Your task to perform on an android device: toggle priority inbox in the gmail app Image 0: 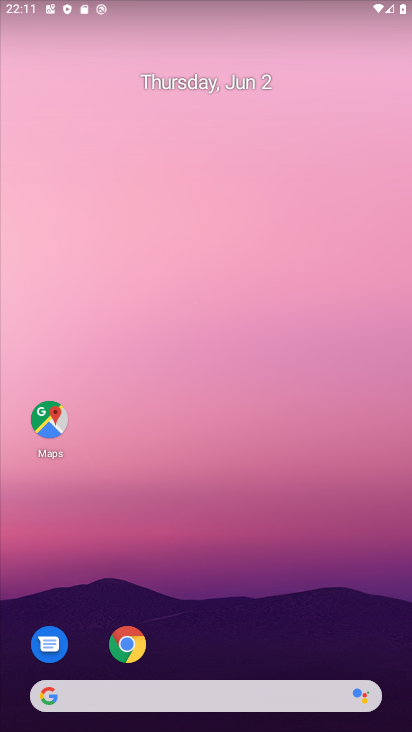
Step 0: drag from (212, 660) to (259, 102)
Your task to perform on an android device: toggle priority inbox in the gmail app Image 1: 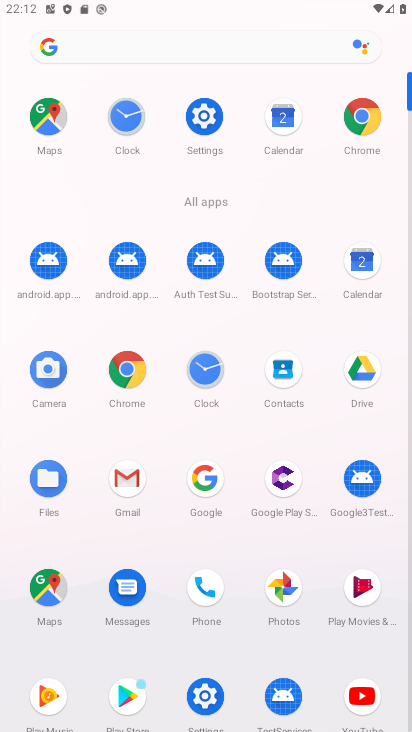
Step 1: click (139, 508)
Your task to perform on an android device: toggle priority inbox in the gmail app Image 2: 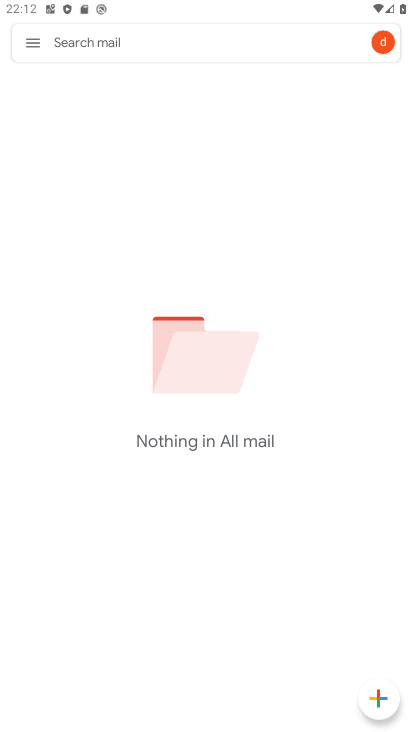
Step 2: click (28, 48)
Your task to perform on an android device: toggle priority inbox in the gmail app Image 3: 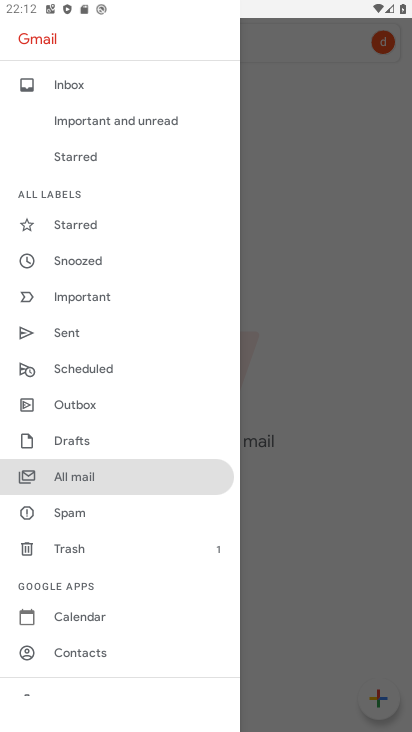
Step 3: drag from (88, 636) to (105, 392)
Your task to perform on an android device: toggle priority inbox in the gmail app Image 4: 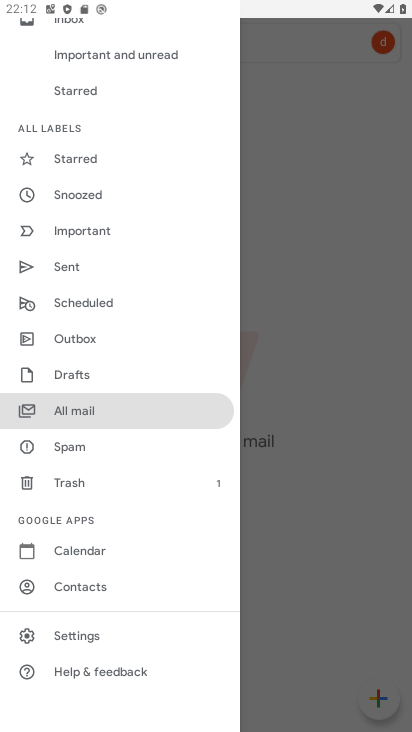
Step 4: click (79, 646)
Your task to perform on an android device: toggle priority inbox in the gmail app Image 5: 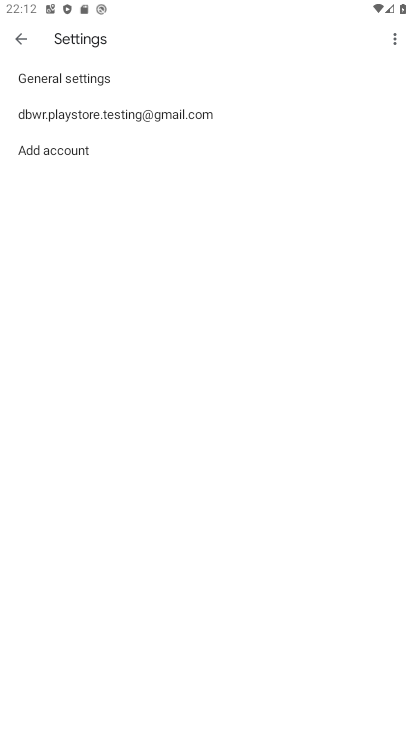
Step 5: click (124, 121)
Your task to perform on an android device: toggle priority inbox in the gmail app Image 6: 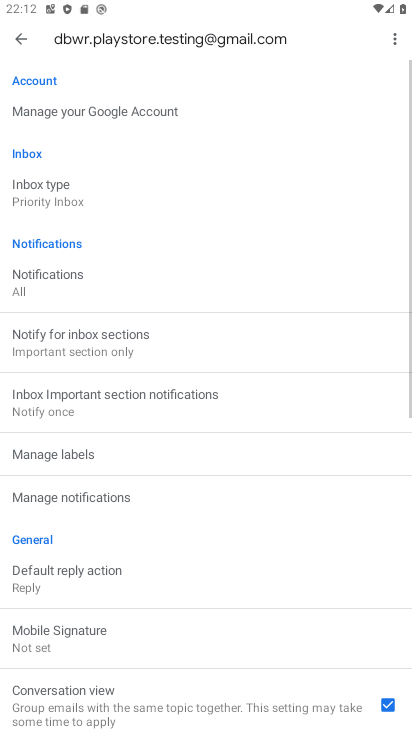
Step 6: click (40, 209)
Your task to perform on an android device: toggle priority inbox in the gmail app Image 7: 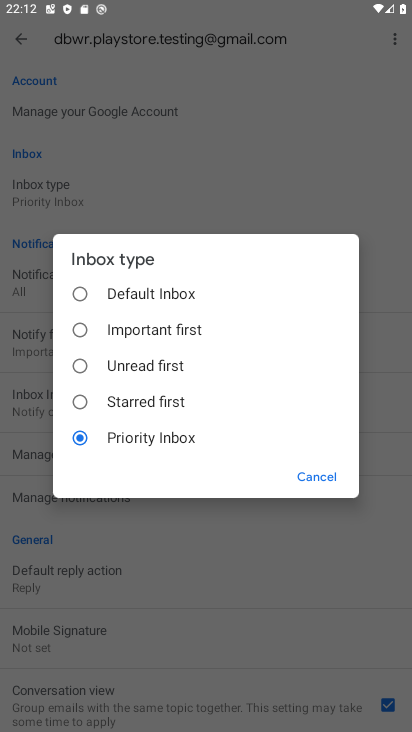
Step 7: click (77, 286)
Your task to perform on an android device: toggle priority inbox in the gmail app Image 8: 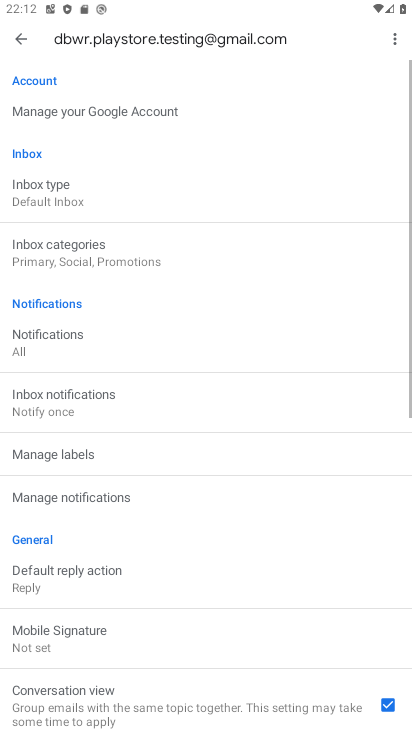
Step 8: task complete